Your task to perform on an android device: change the clock display to digital Image 0: 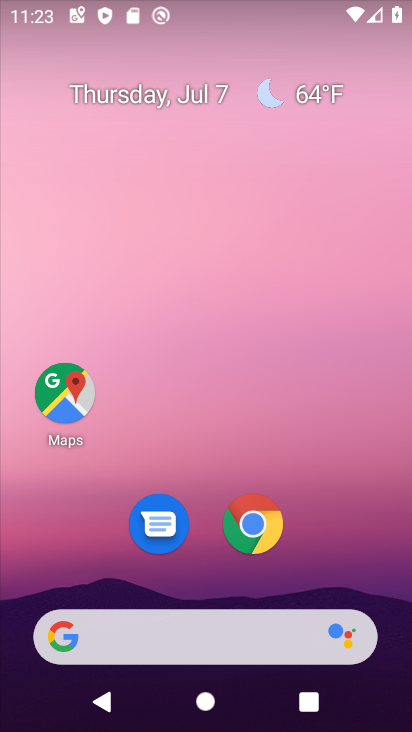
Step 0: drag from (247, 440) to (268, 13)
Your task to perform on an android device: change the clock display to digital Image 1: 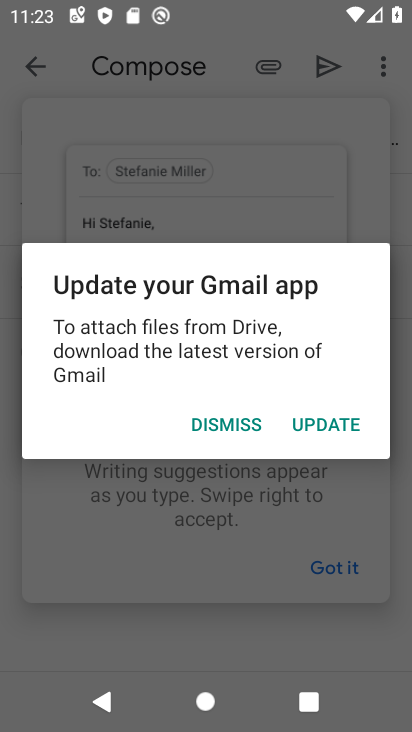
Step 1: press home button
Your task to perform on an android device: change the clock display to digital Image 2: 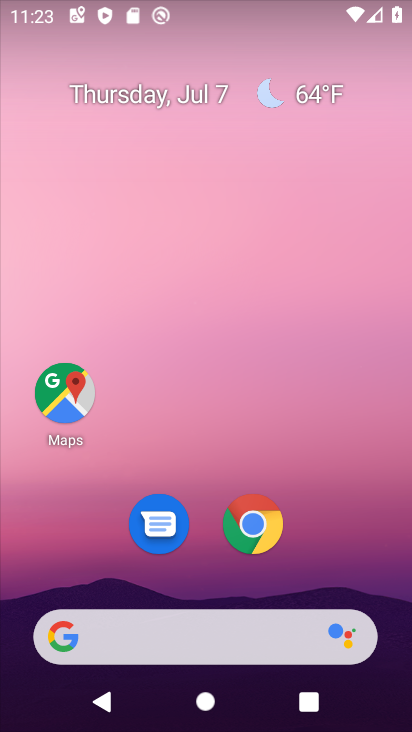
Step 2: drag from (343, 549) to (367, 80)
Your task to perform on an android device: change the clock display to digital Image 3: 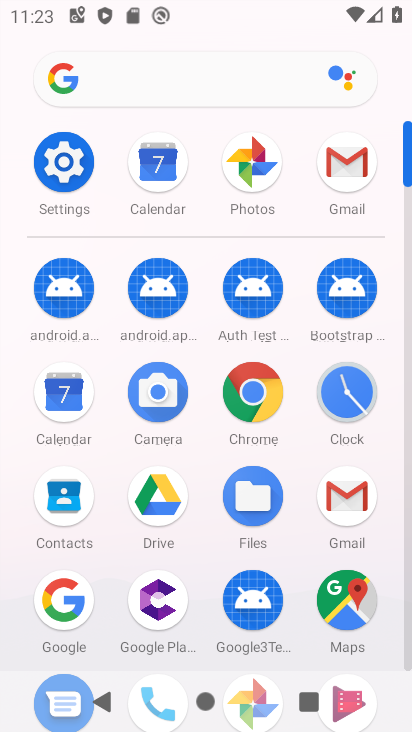
Step 3: click (344, 388)
Your task to perform on an android device: change the clock display to digital Image 4: 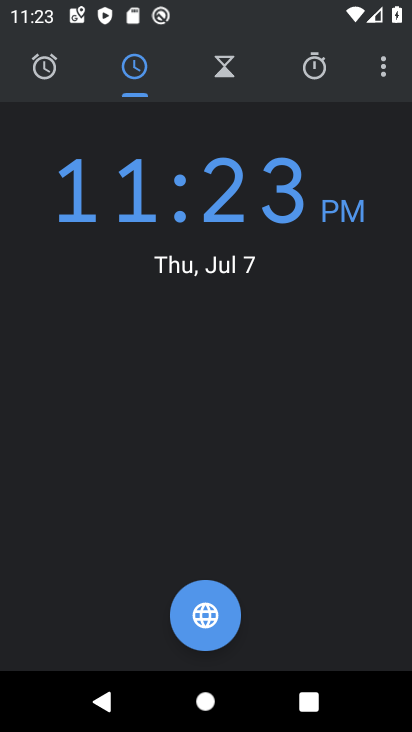
Step 4: task complete